Your task to perform on an android device: open sync settings in chrome Image 0: 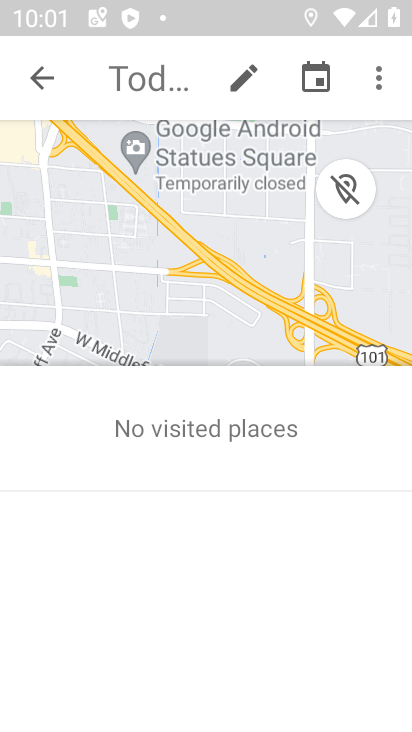
Step 0: press home button
Your task to perform on an android device: open sync settings in chrome Image 1: 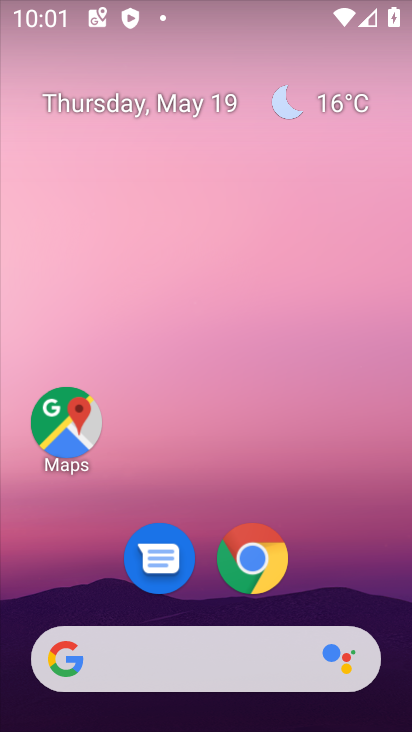
Step 1: click (256, 556)
Your task to perform on an android device: open sync settings in chrome Image 2: 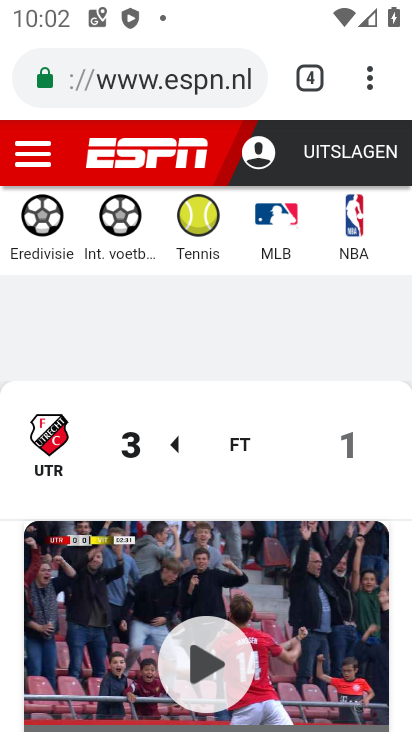
Step 2: click (369, 87)
Your task to perform on an android device: open sync settings in chrome Image 3: 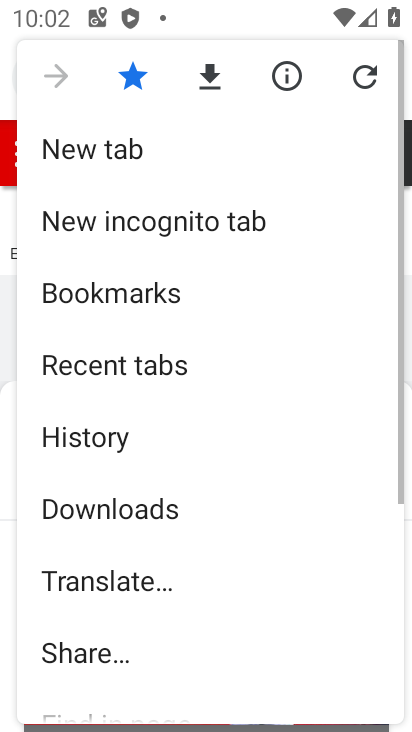
Step 3: drag from (160, 607) to (129, 298)
Your task to perform on an android device: open sync settings in chrome Image 4: 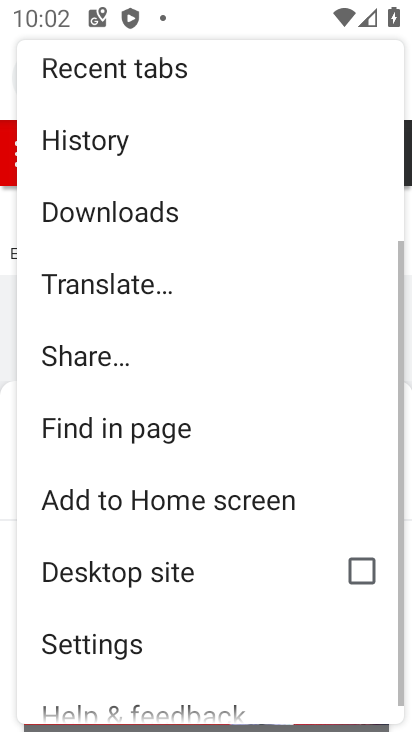
Step 4: click (111, 642)
Your task to perform on an android device: open sync settings in chrome Image 5: 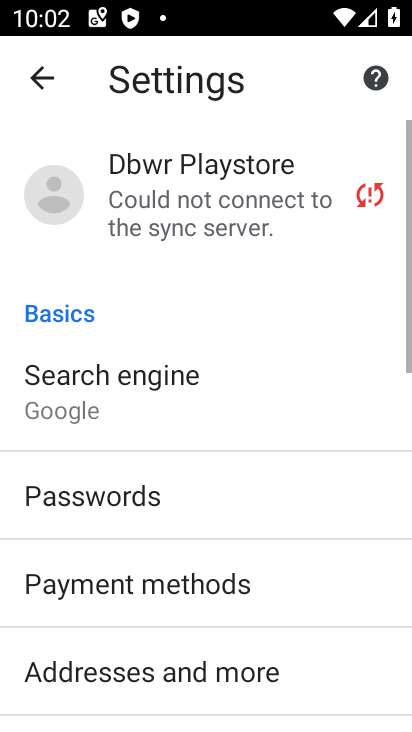
Step 5: drag from (179, 670) to (183, 251)
Your task to perform on an android device: open sync settings in chrome Image 6: 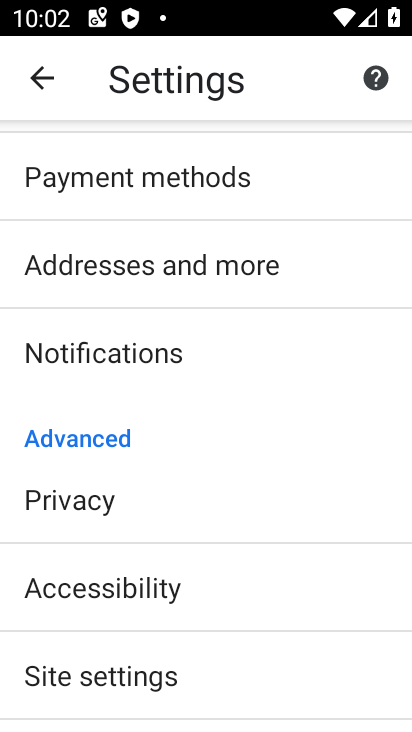
Step 6: drag from (141, 580) to (138, 384)
Your task to perform on an android device: open sync settings in chrome Image 7: 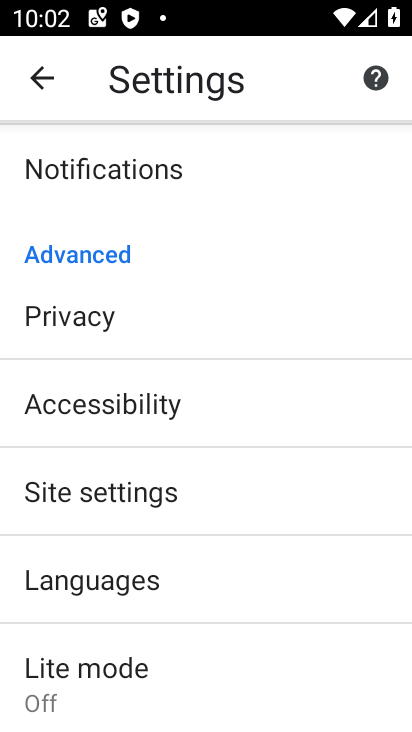
Step 7: click (112, 492)
Your task to perform on an android device: open sync settings in chrome Image 8: 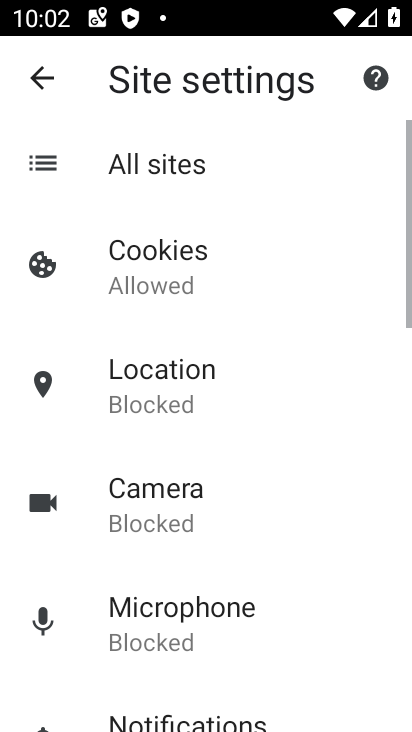
Step 8: drag from (144, 701) to (150, 349)
Your task to perform on an android device: open sync settings in chrome Image 9: 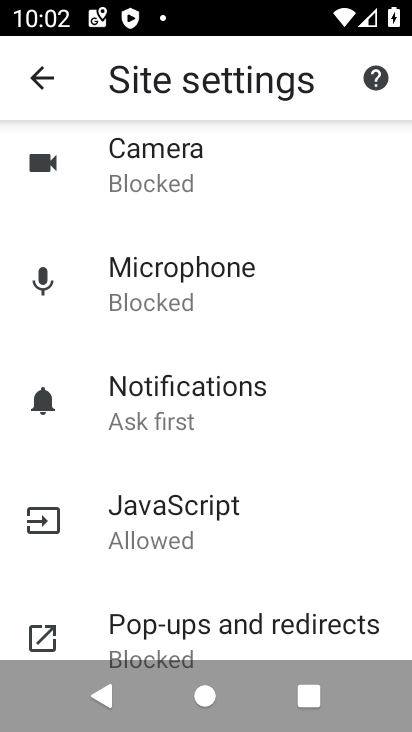
Step 9: drag from (189, 591) to (181, 207)
Your task to perform on an android device: open sync settings in chrome Image 10: 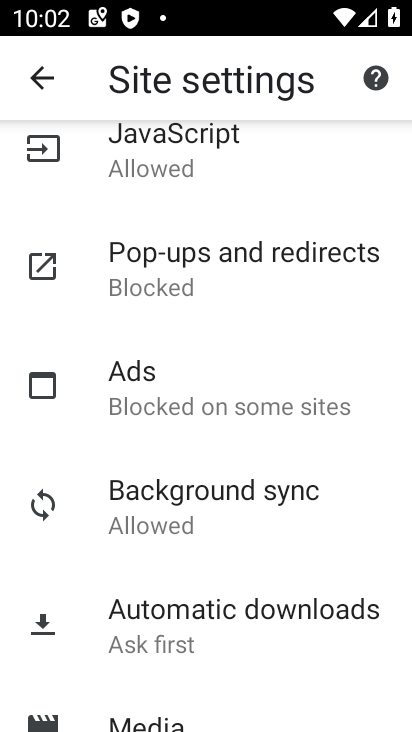
Step 10: click (206, 491)
Your task to perform on an android device: open sync settings in chrome Image 11: 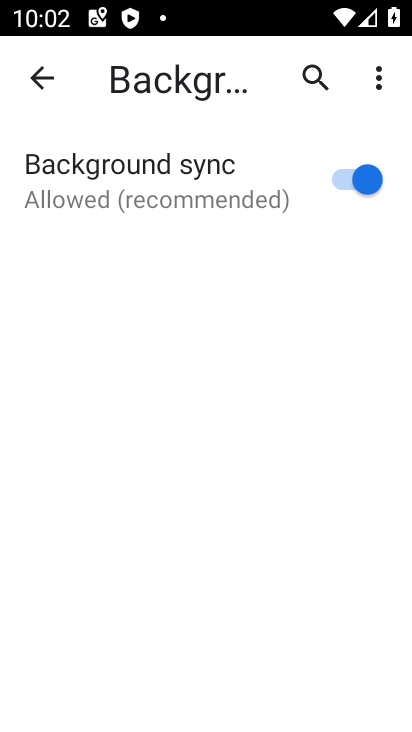
Step 11: task complete